Your task to perform on an android device: empty trash in the gmail app Image 0: 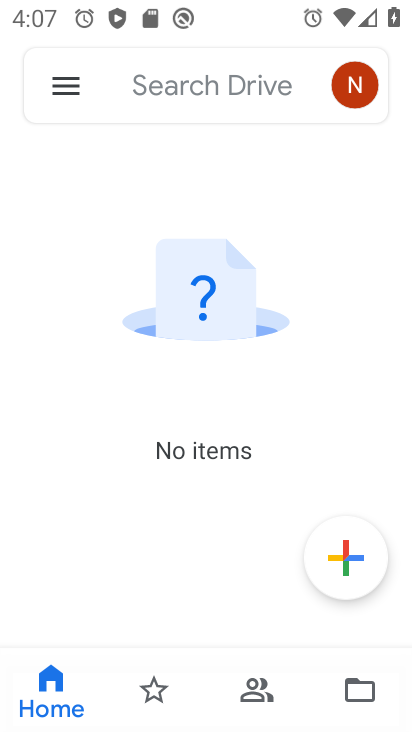
Step 0: press home button
Your task to perform on an android device: empty trash in the gmail app Image 1: 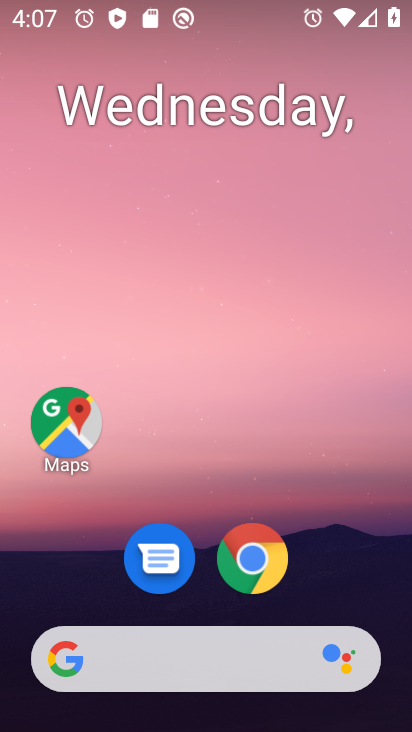
Step 1: drag from (188, 629) to (214, 235)
Your task to perform on an android device: empty trash in the gmail app Image 2: 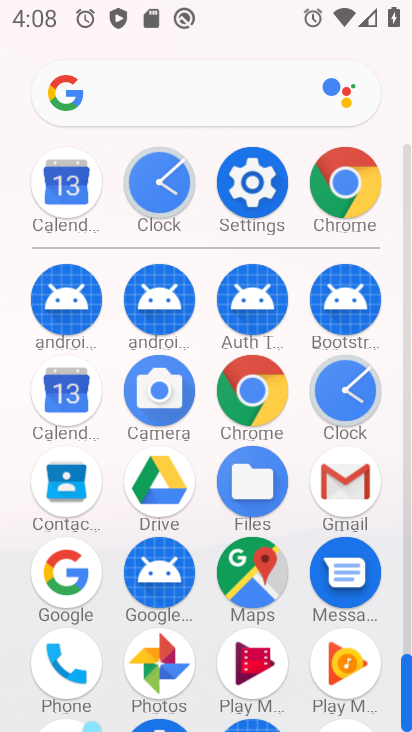
Step 2: click (335, 494)
Your task to perform on an android device: empty trash in the gmail app Image 3: 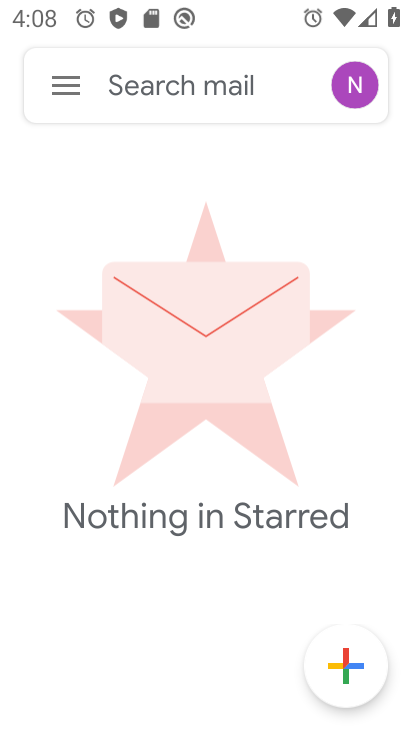
Step 3: click (67, 92)
Your task to perform on an android device: empty trash in the gmail app Image 4: 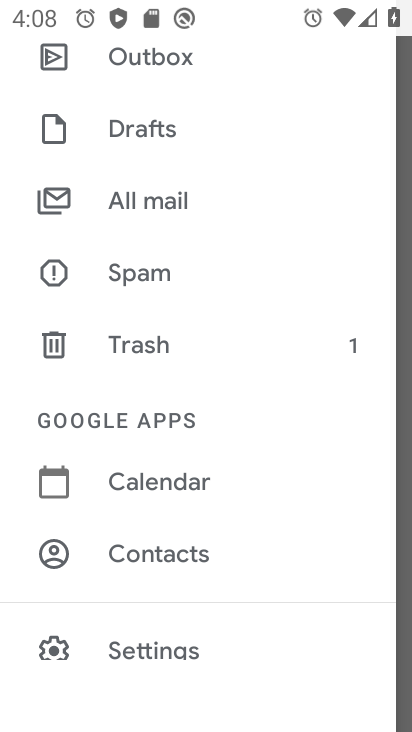
Step 4: click (139, 340)
Your task to perform on an android device: empty trash in the gmail app Image 5: 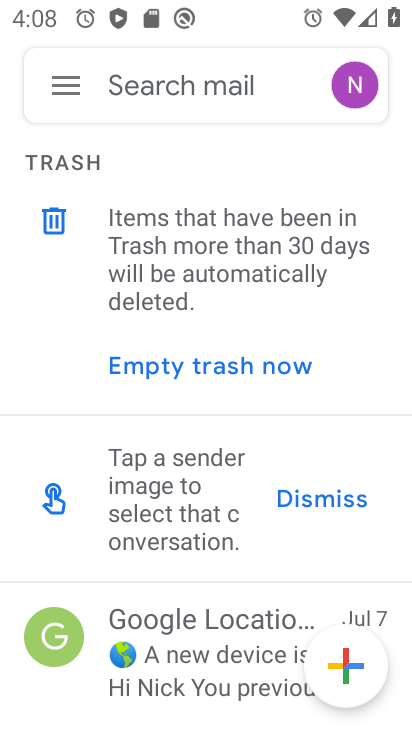
Step 5: task complete